Your task to perform on an android device: visit the assistant section in the google photos Image 0: 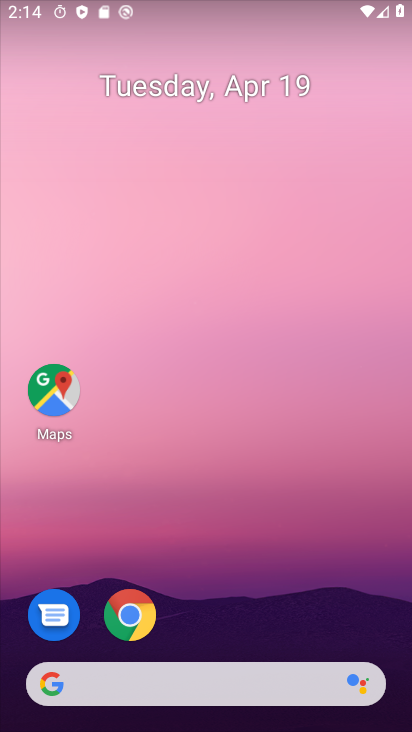
Step 0: drag from (226, 490) to (147, 25)
Your task to perform on an android device: visit the assistant section in the google photos Image 1: 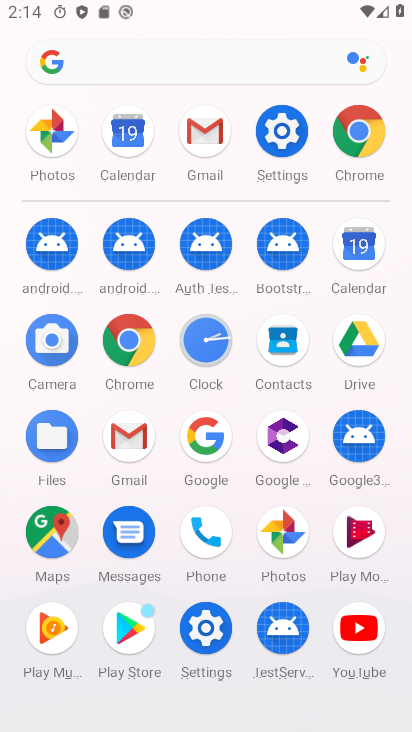
Step 1: click (288, 522)
Your task to perform on an android device: visit the assistant section in the google photos Image 2: 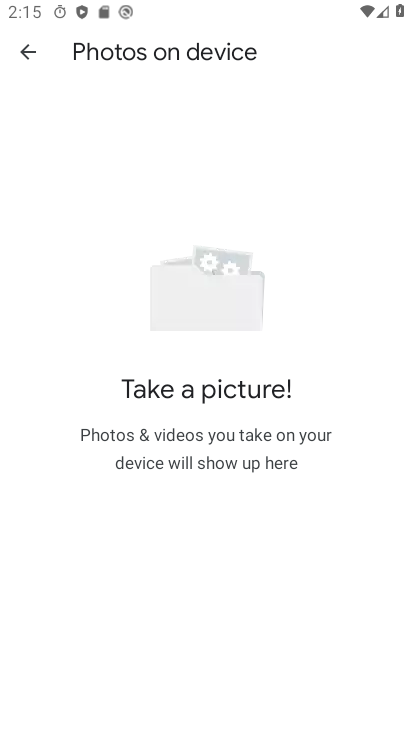
Step 2: click (31, 43)
Your task to perform on an android device: visit the assistant section in the google photos Image 3: 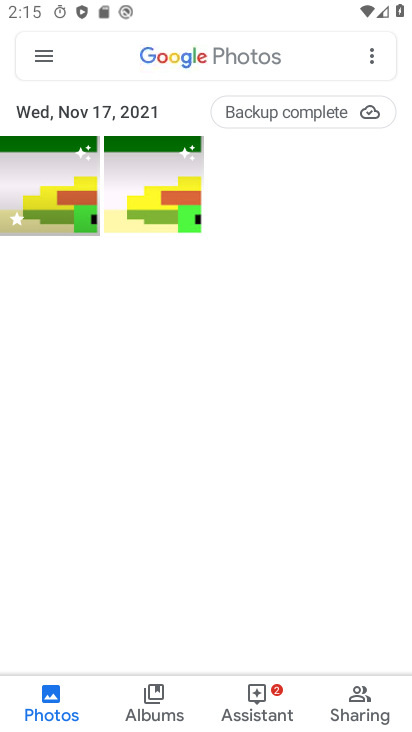
Step 3: click (254, 697)
Your task to perform on an android device: visit the assistant section in the google photos Image 4: 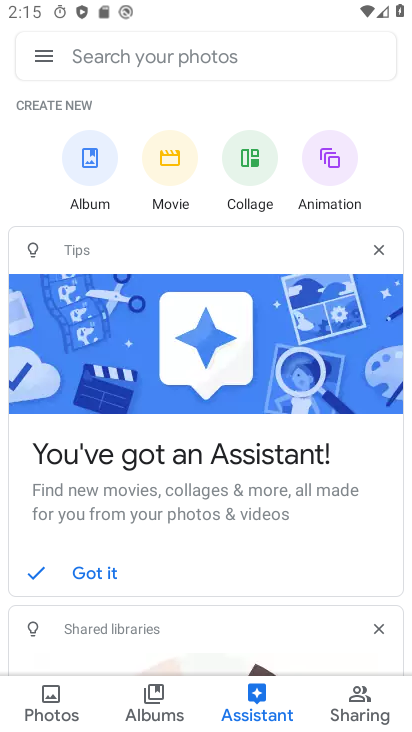
Step 4: task complete